Your task to perform on an android device: open app "Clock" Image 0: 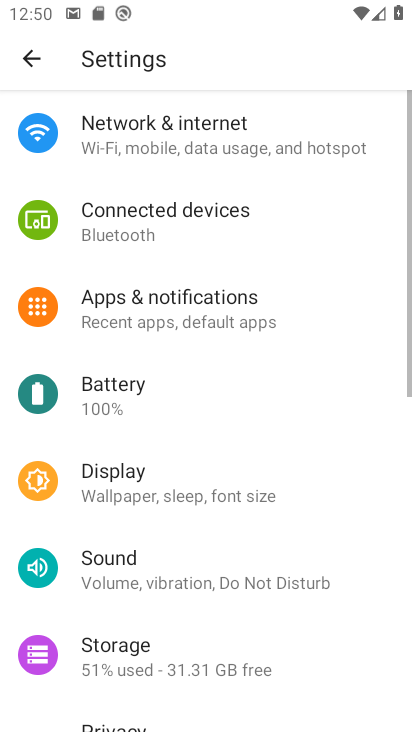
Step 0: press home button
Your task to perform on an android device: open app "Clock" Image 1: 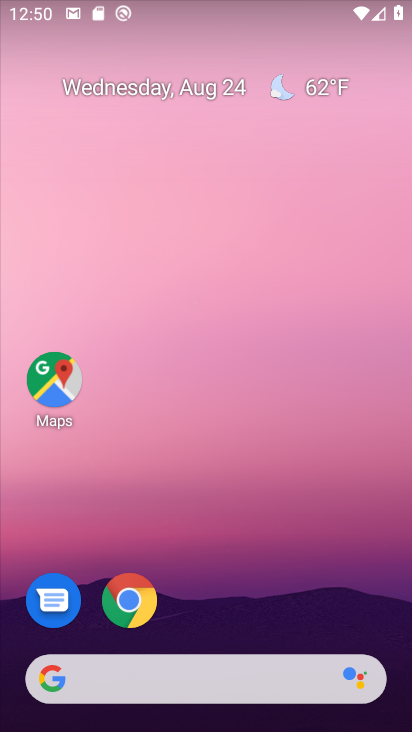
Step 1: drag from (262, 629) to (243, 44)
Your task to perform on an android device: open app "Clock" Image 2: 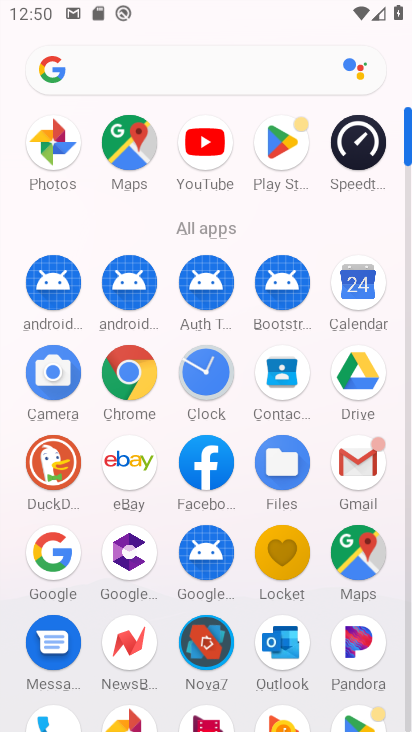
Step 2: click (209, 386)
Your task to perform on an android device: open app "Clock" Image 3: 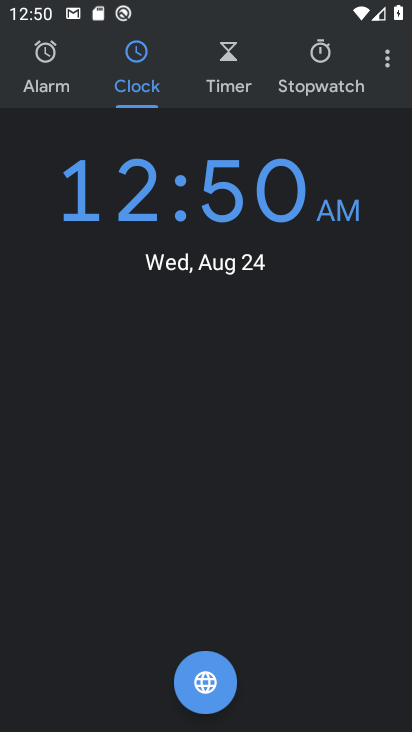
Step 3: task complete